Your task to perform on an android device: uninstall "Spotify: Music and Podcasts" Image 0: 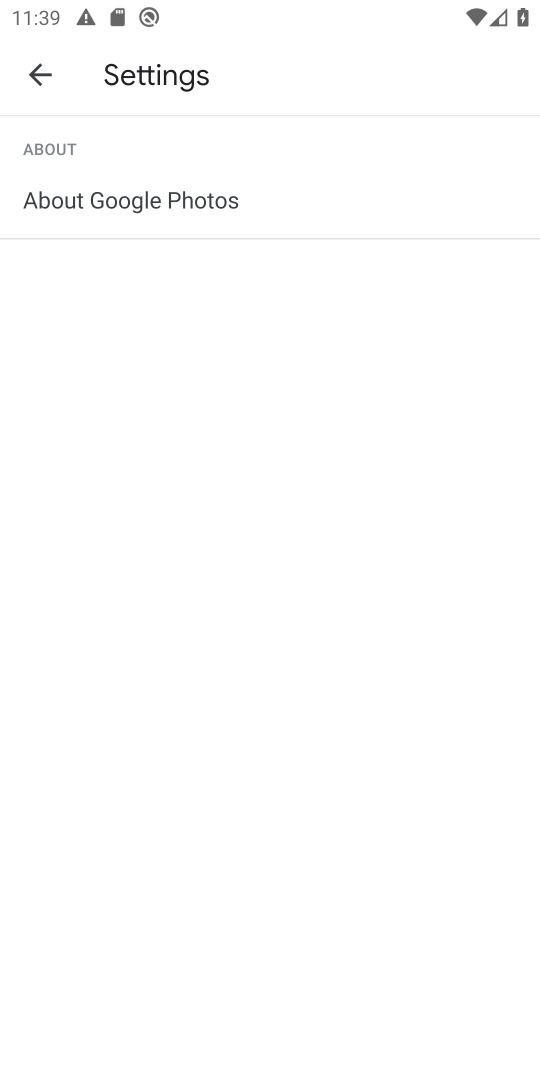
Step 0: press home button
Your task to perform on an android device: uninstall "Spotify: Music and Podcasts" Image 1: 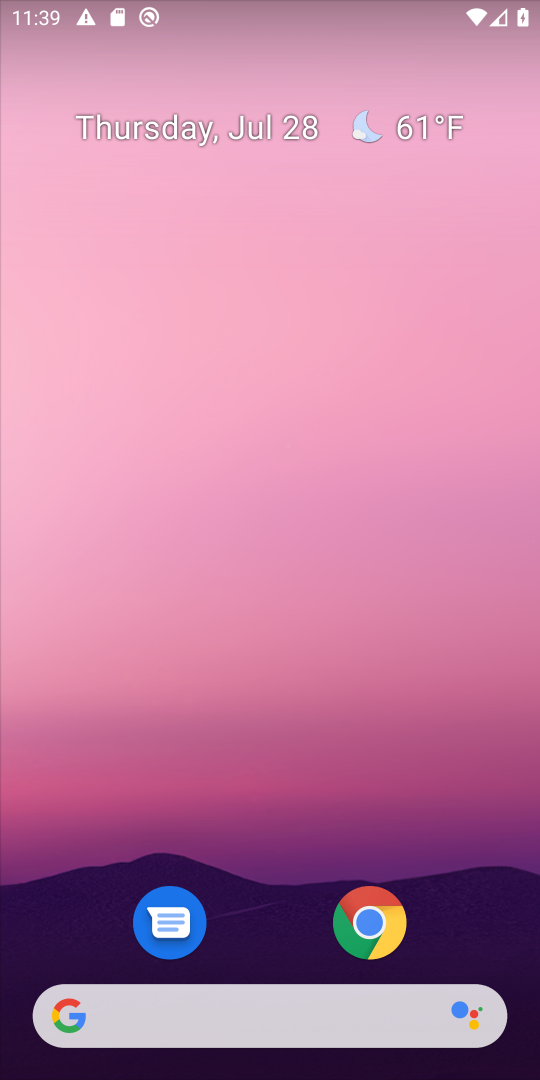
Step 1: drag from (231, 630) to (279, 182)
Your task to perform on an android device: uninstall "Spotify: Music and Podcasts" Image 2: 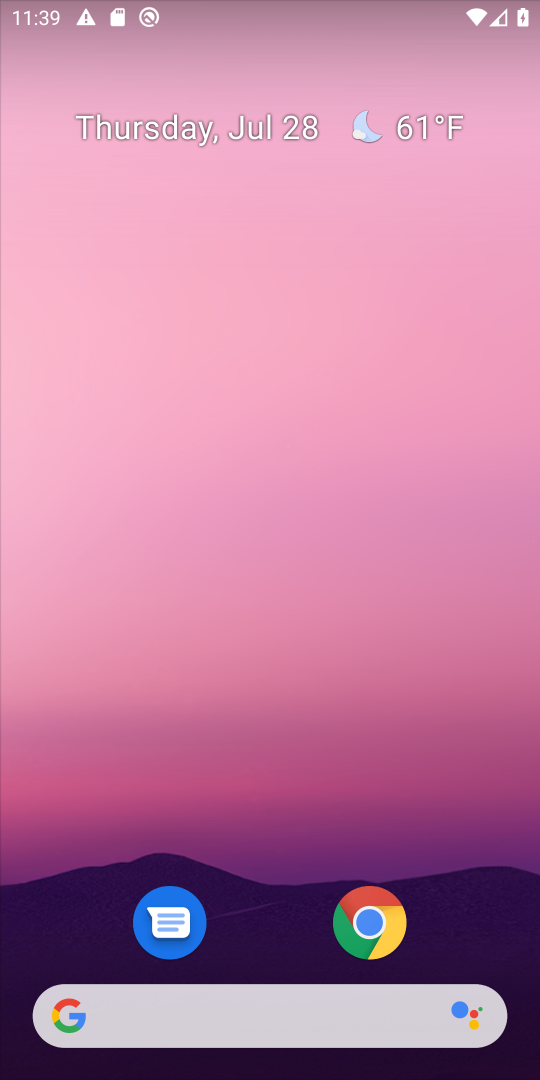
Step 2: drag from (269, 901) to (351, 120)
Your task to perform on an android device: uninstall "Spotify: Music and Podcasts" Image 3: 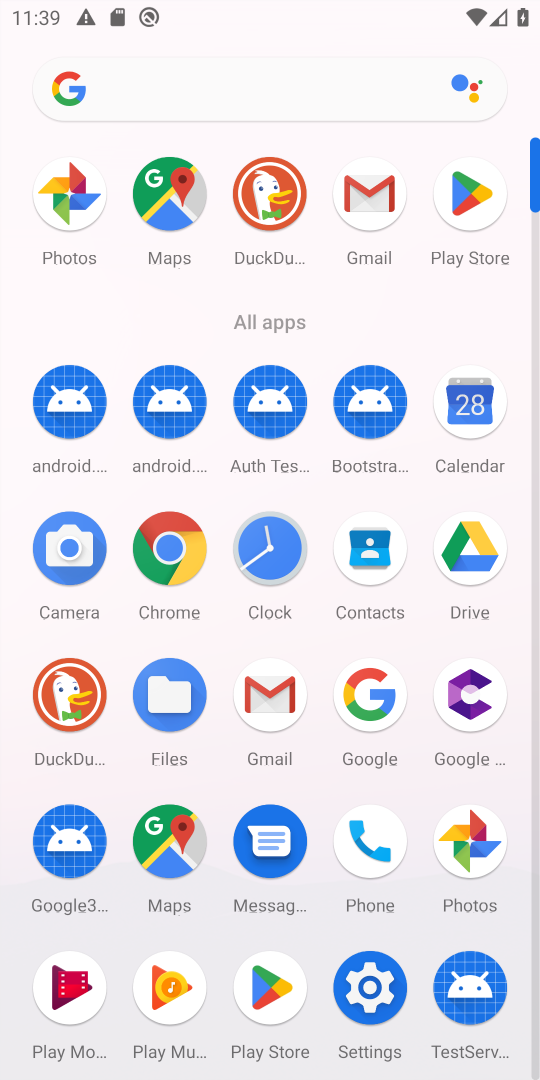
Step 3: click (457, 206)
Your task to perform on an android device: uninstall "Spotify: Music and Podcasts" Image 4: 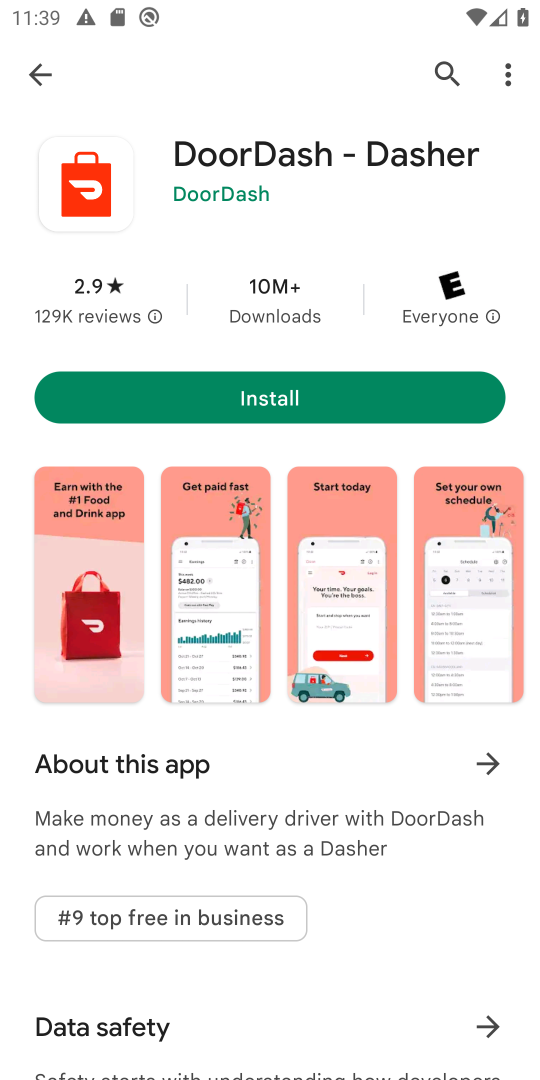
Step 4: click (450, 65)
Your task to perform on an android device: uninstall "Spotify: Music and Podcasts" Image 5: 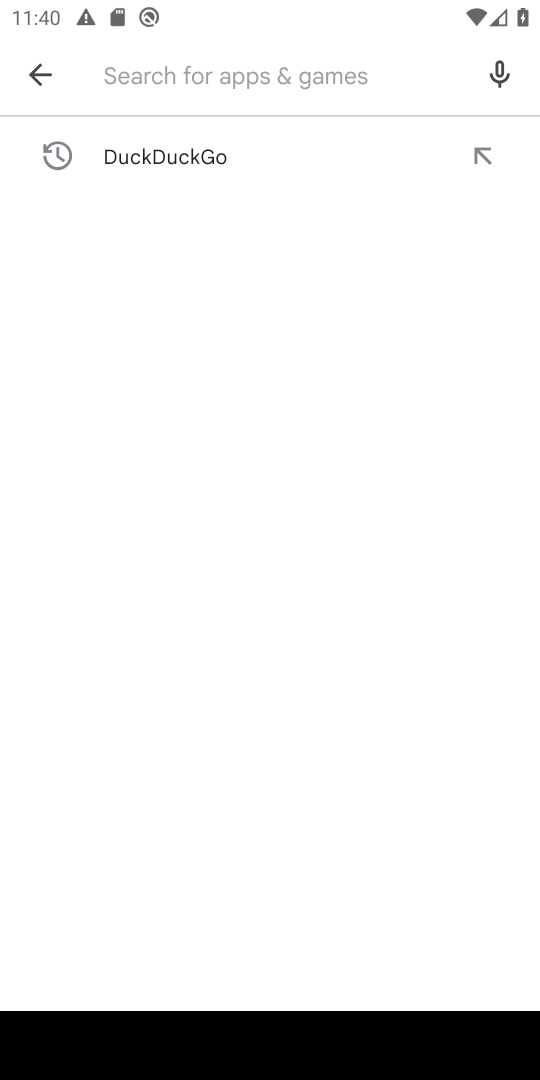
Step 5: type "Spotify: Music and Podcasts"
Your task to perform on an android device: uninstall "Spotify: Music and Podcasts" Image 6: 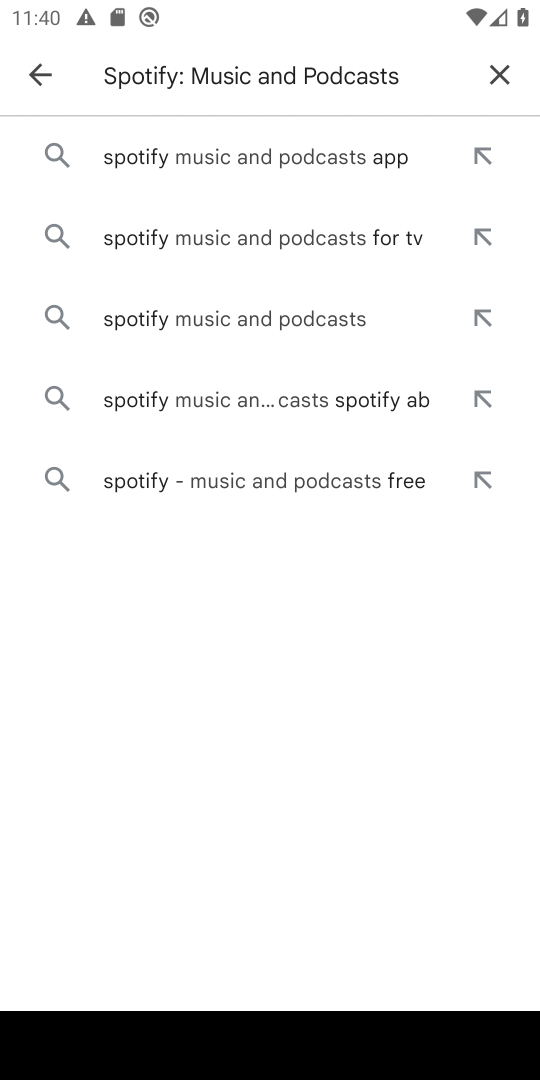
Step 6: press enter
Your task to perform on an android device: uninstall "Spotify: Music and Podcasts" Image 7: 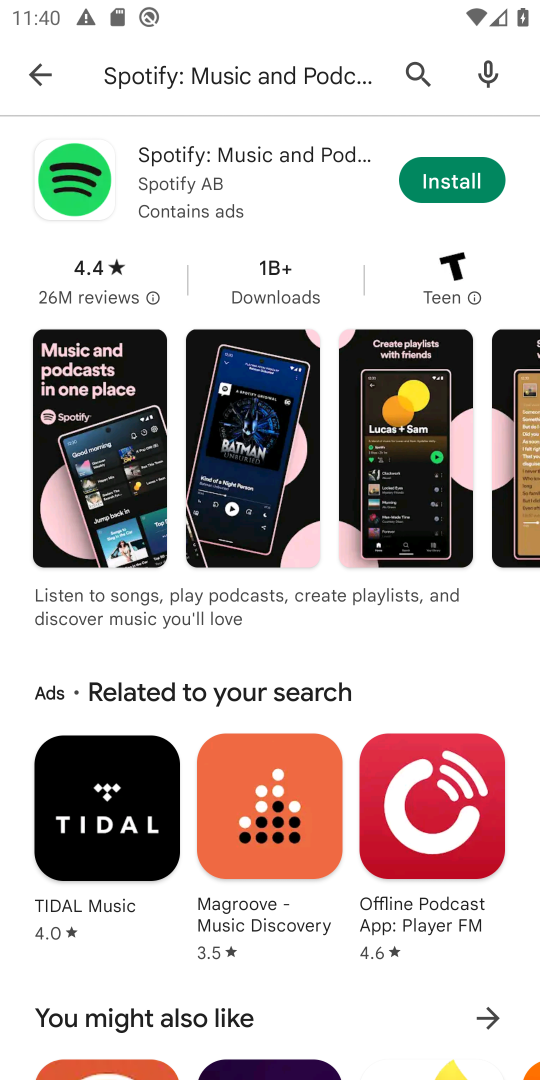
Step 7: task complete